Your task to perform on an android device: change the clock style Image 0: 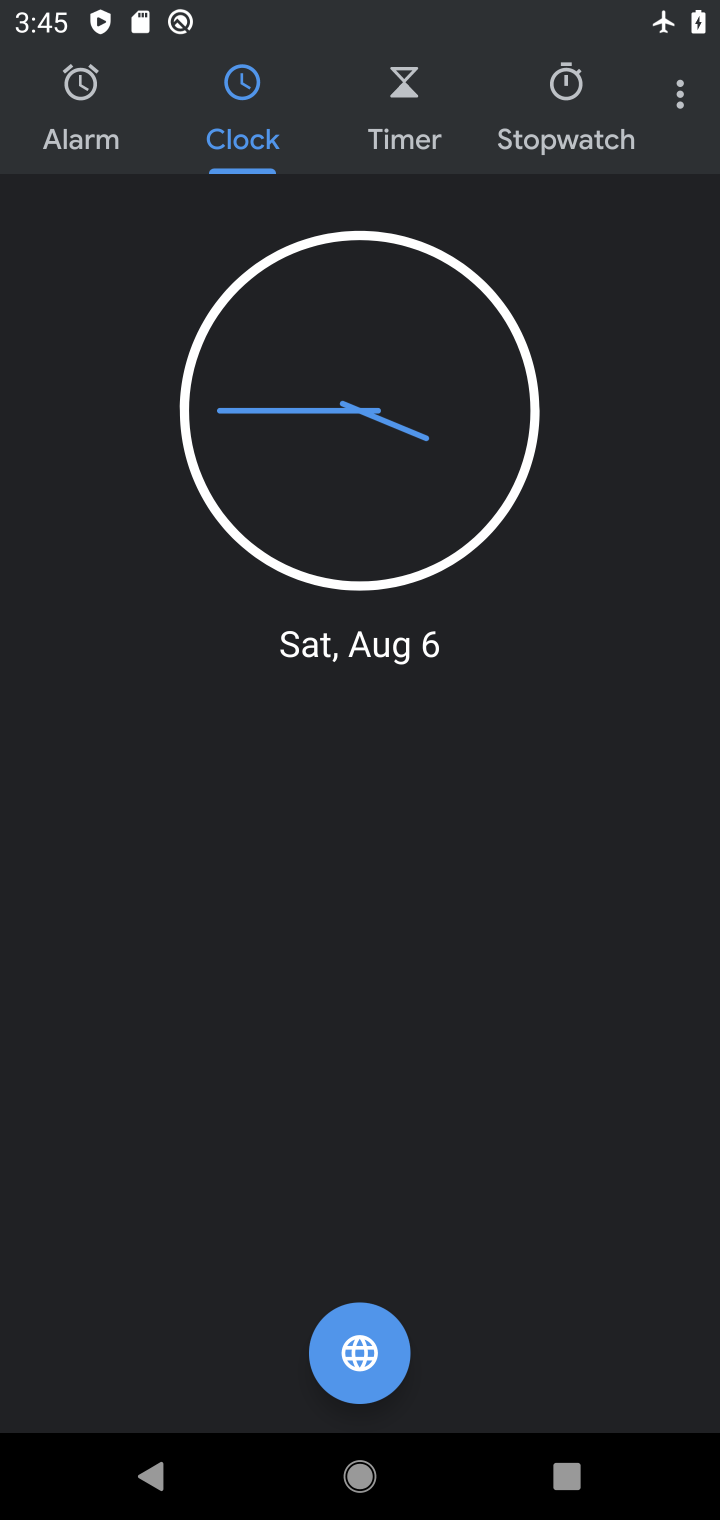
Step 0: task complete